Your task to perform on an android device: Do I have any events this weekend? Image 0: 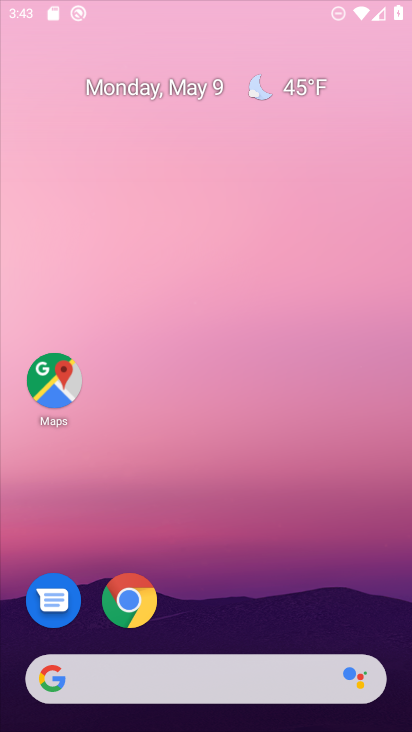
Step 0: drag from (245, 0) to (283, 31)
Your task to perform on an android device: Do I have any events this weekend? Image 1: 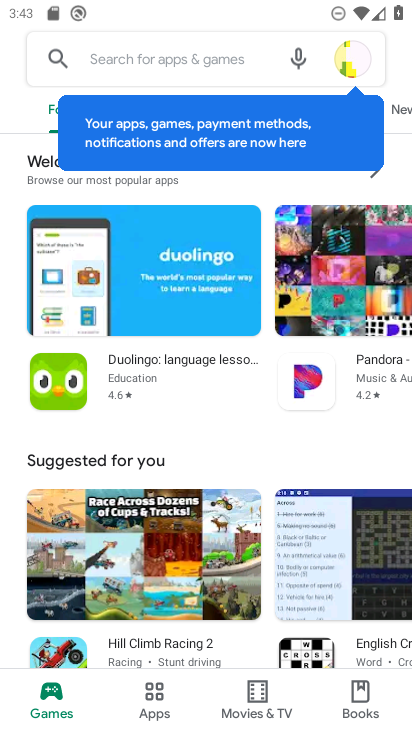
Step 1: press back button
Your task to perform on an android device: Do I have any events this weekend? Image 2: 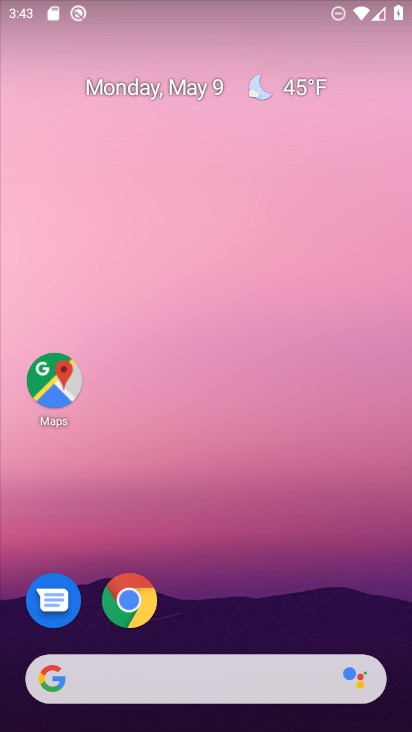
Step 2: drag from (337, 579) to (406, 7)
Your task to perform on an android device: Do I have any events this weekend? Image 3: 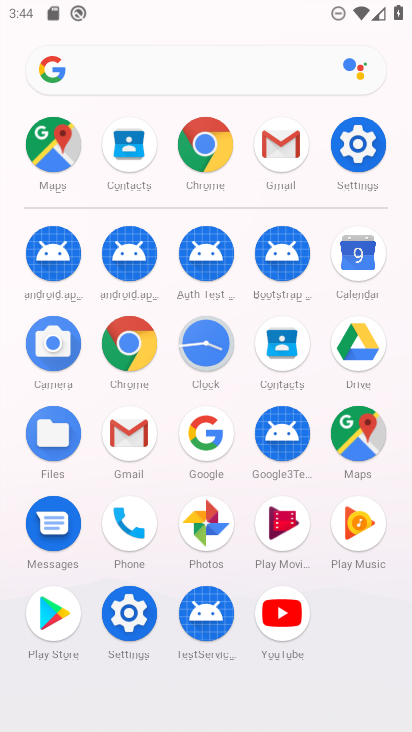
Step 3: drag from (10, 279) to (10, 190)
Your task to perform on an android device: Do I have any events this weekend? Image 4: 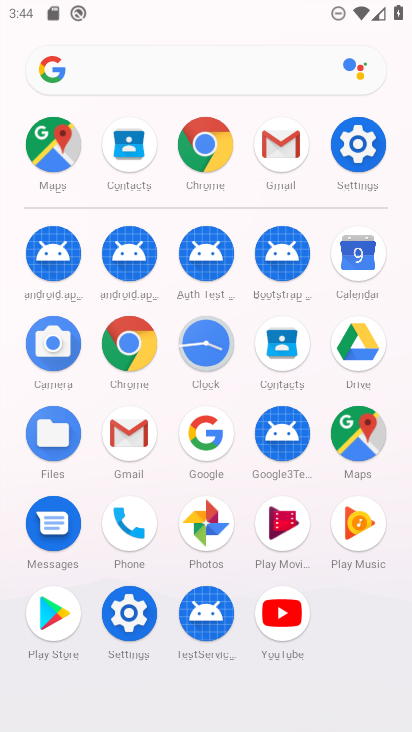
Step 4: click (359, 252)
Your task to perform on an android device: Do I have any events this weekend? Image 5: 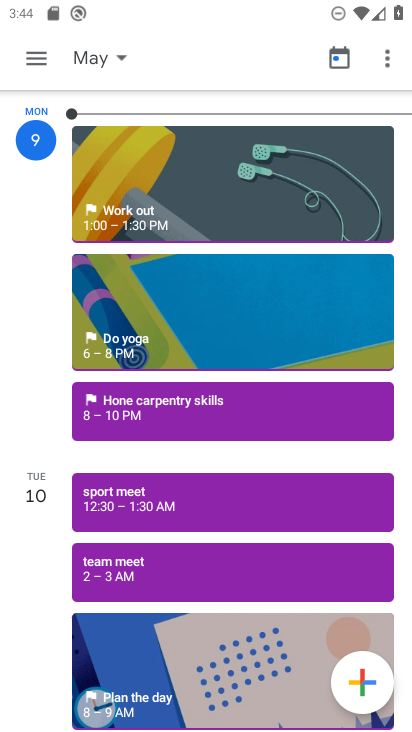
Step 5: drag from (50, 533) to (28, 252)
Your task to perform on an android device: Do I have any events this weekend? Image 6: 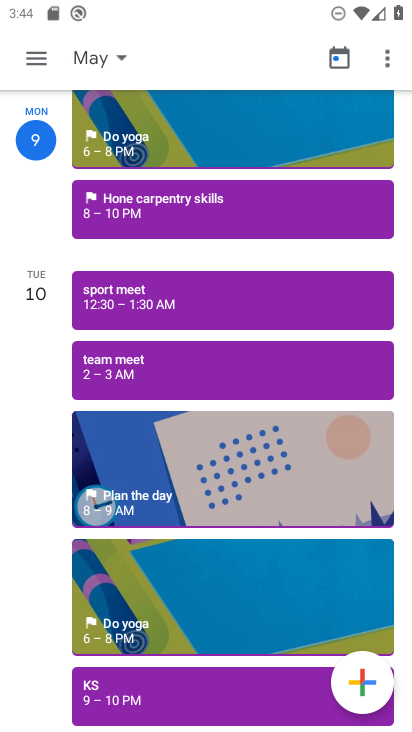
Step 6: drag from (175, 574) to (203, 191)
Your task to perform on an android device: Do I have any events this weekend? Image 7: 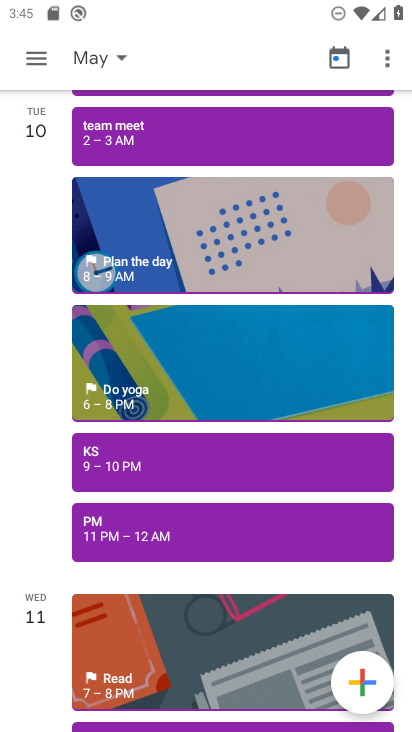
Step 7: click (37, 58)
Your task to perform on an android device: Do I have any events this weekend? Image 8: 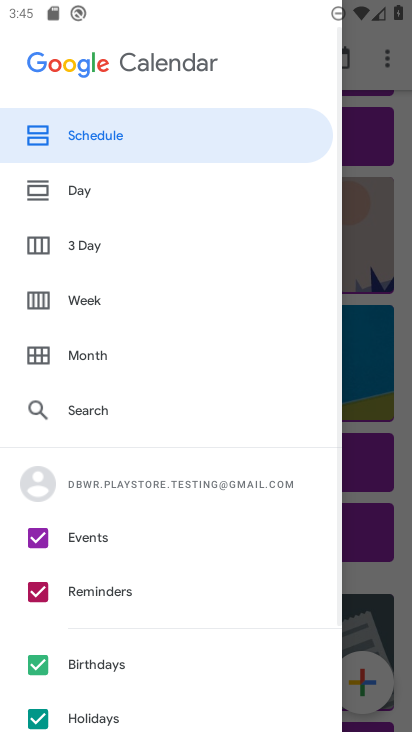
Step 8: drag from (205, 544) to (217, 102)
Your task to perform on an android device: Do I have any events this weekend? Image 9: 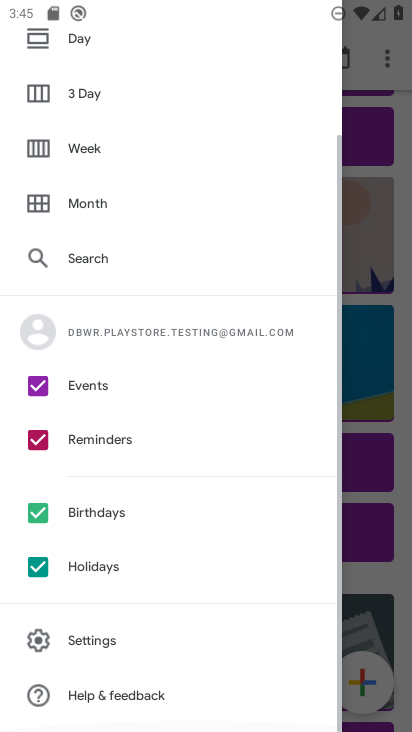
Step 9: drag from (234, 566) to (221, 203)
Your task to perform on an android device: Do I have any events this weekend? Image 10: 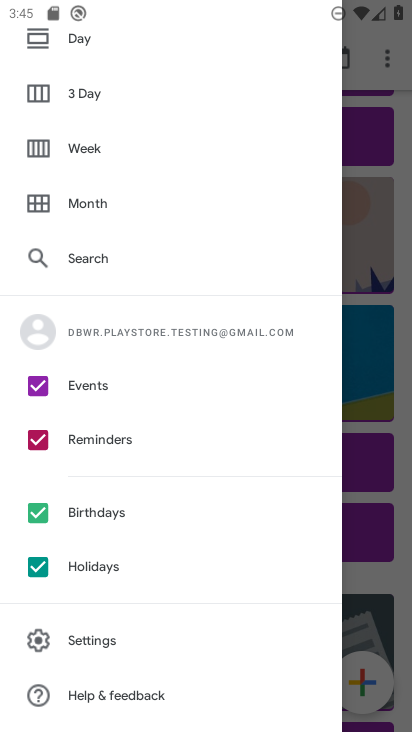
Step 10: click (119, 652)
Your task to perform on an android device: Do I have any events this weekend? Image 11: 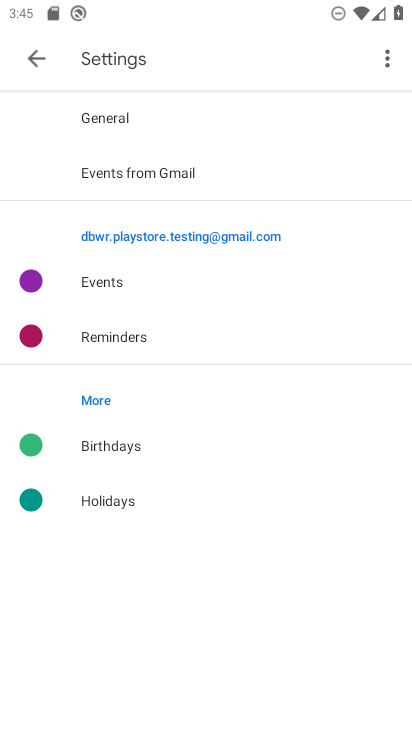
Step 11: click (37, 55)
Your task to perform on an android device: Do I have any events this weekend? Image 12: 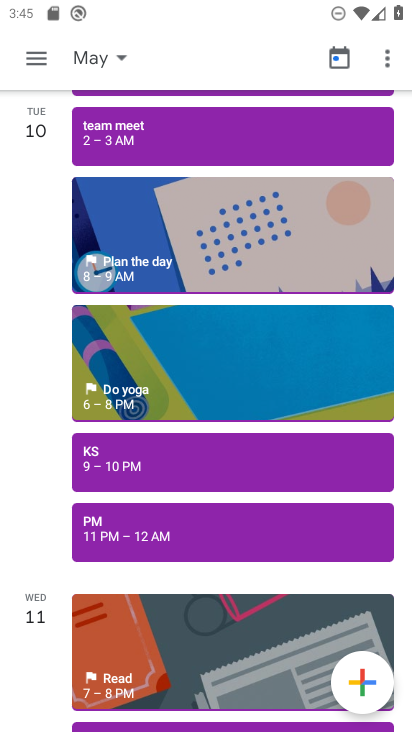
Step 12: drag from (43, 100) to (73, 306)
Your task to perform on an android device: Do I have any events this weekend? Image 13: 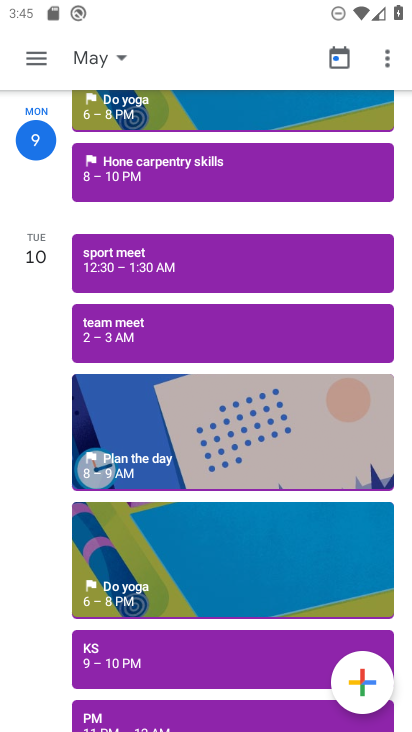
Step 13: click (23, 52)
Your task to perform on an android device: Do I have any events this weekend? Image 14: 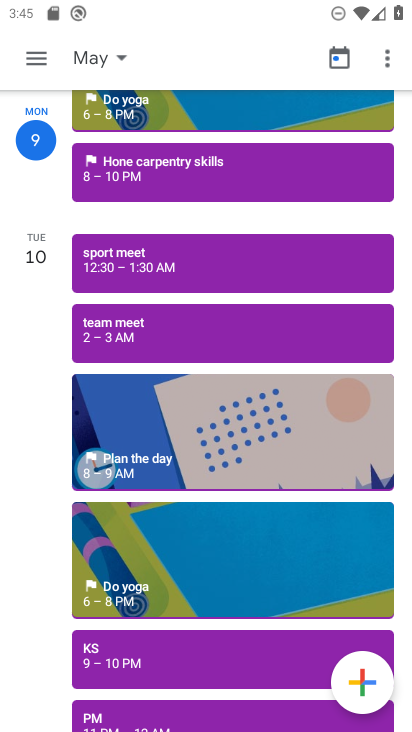
Step 14: click (39, 57)
Your task to perform on an android device: Do I have any events this weekend? Image 15: 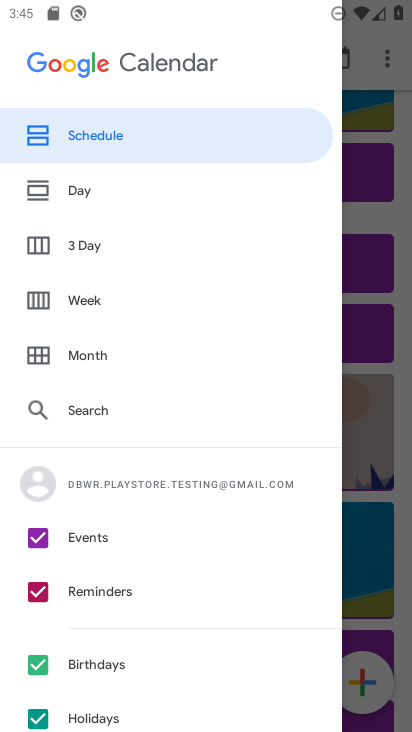
Step 15: click (128, 296)
Your task to perform on an android device: Do I have any events this weekend? Image 16: 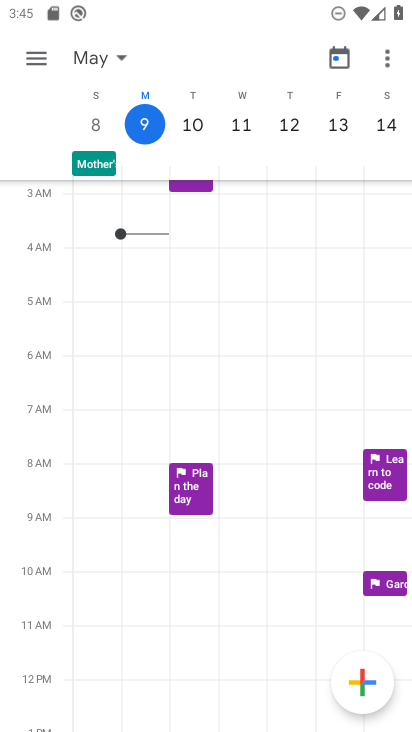
Step 16: click (377, 120)
Your task to perform on an android device: Do I have any events this weekend? Image 17: 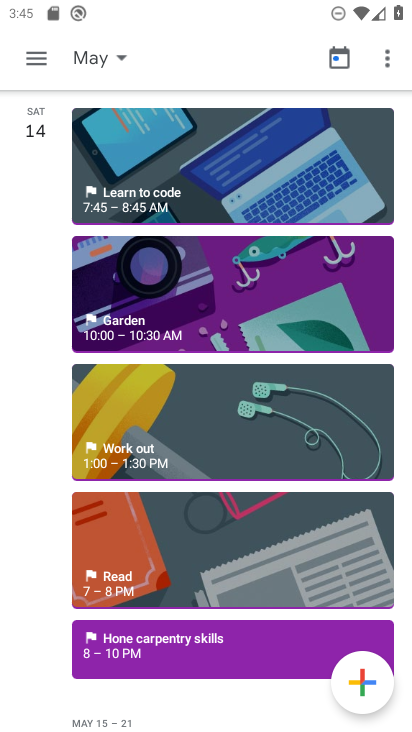
Step 17: task complete